Your task to perform on an android device: Set the phone to "Do not disturb". Image 0: 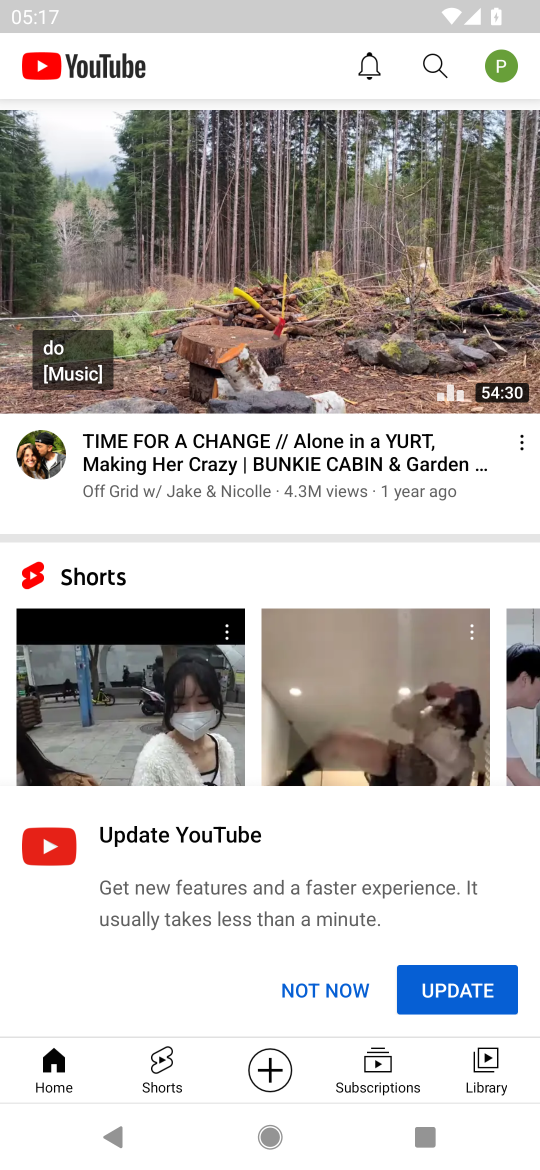
Step 0: press home button
Your task to perform on an android device: Set the phone to "Do not disturb". Image 1: 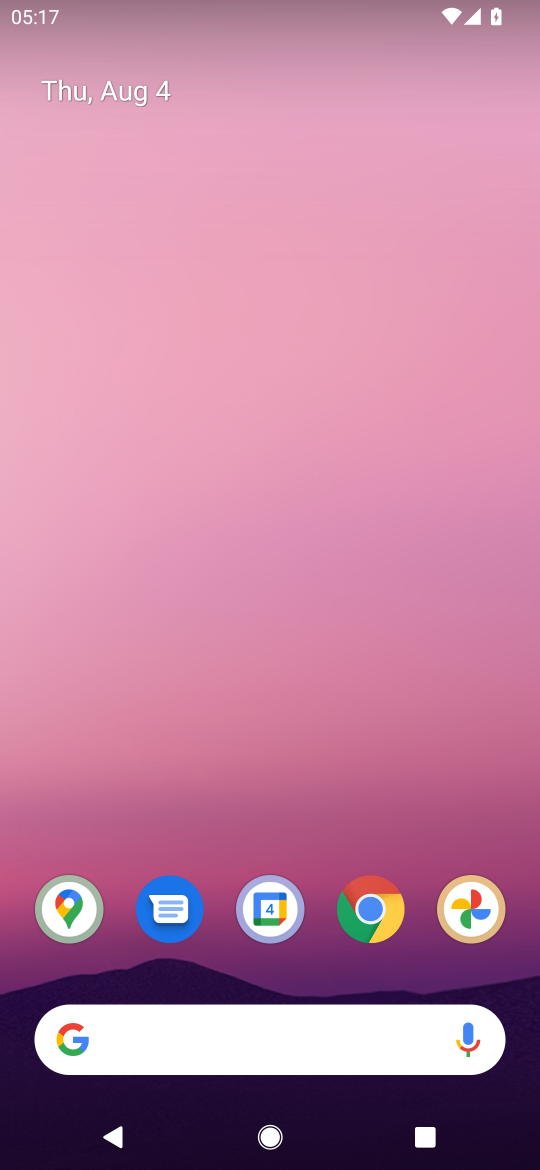
Step 1: drag from (267, 281) to (286, 692)
Your task to perform on an android device: Set the phone to "Do not disturb". Image 2: 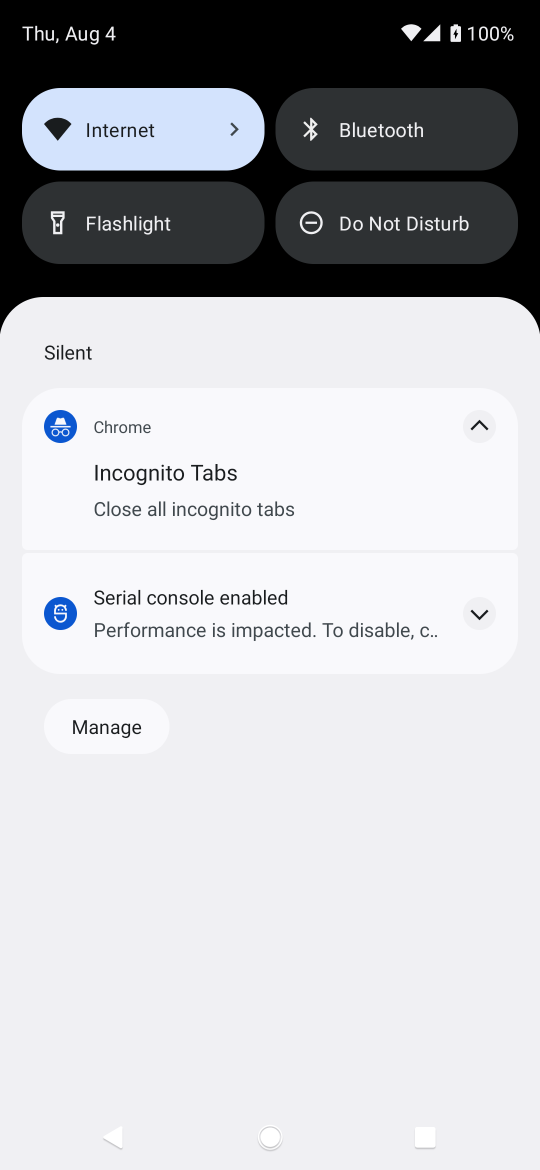
Step 2: click (377, 230)
Your task to perform on an android device: Set the phone to "Do not disturb". Image 3: 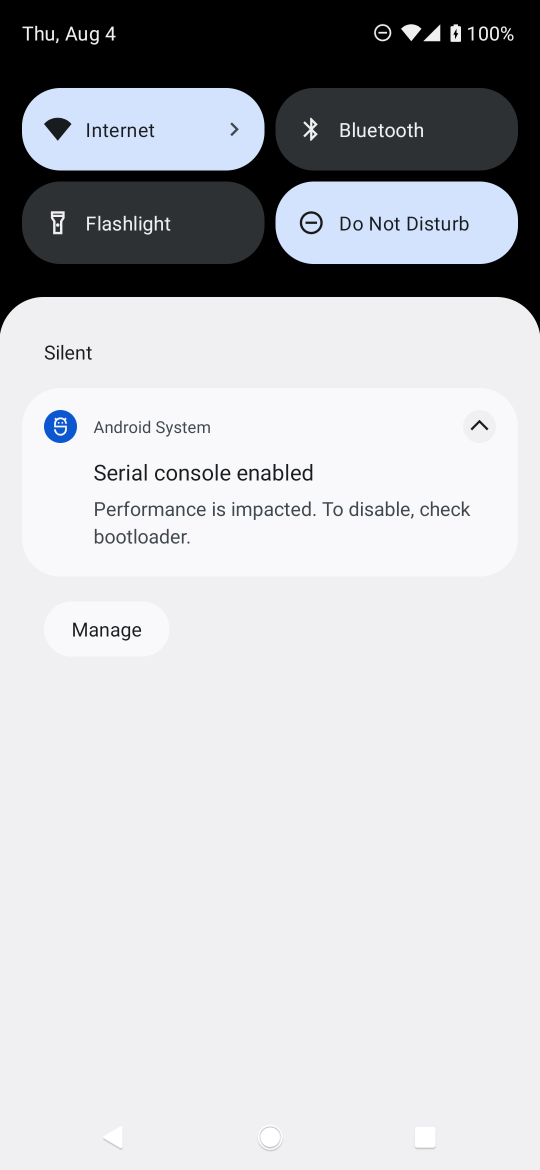
Step 3: task complete